Your task to perform on an android device: Go to Google maps Image 0: 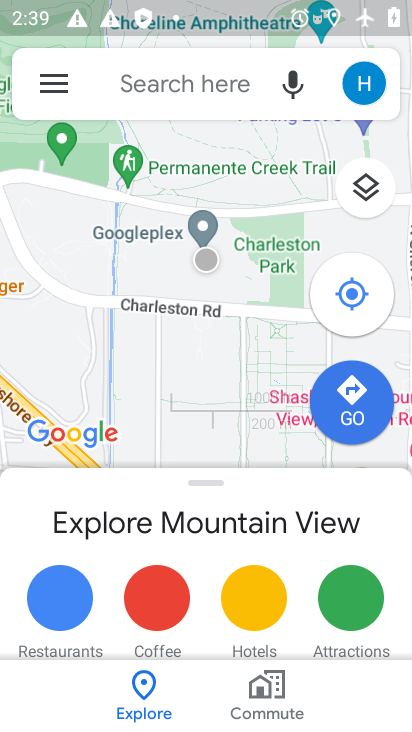
Step 0: press home button
Your task to perform on an android device: Go to Google maps Image 1: 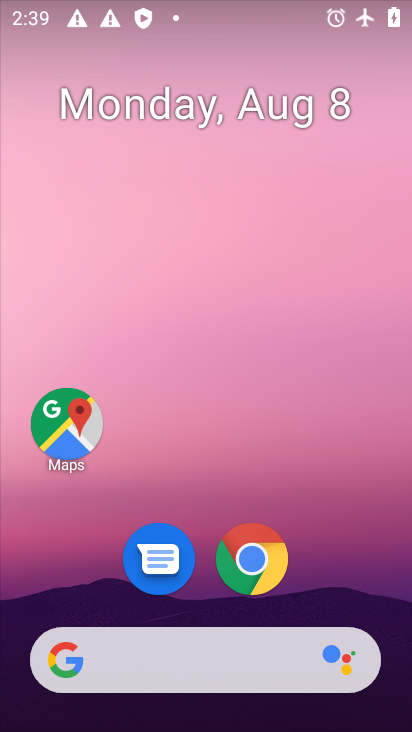
Step 1: click (70, 426)
Your task to perform on an android device: Go to Google maps Image 2: 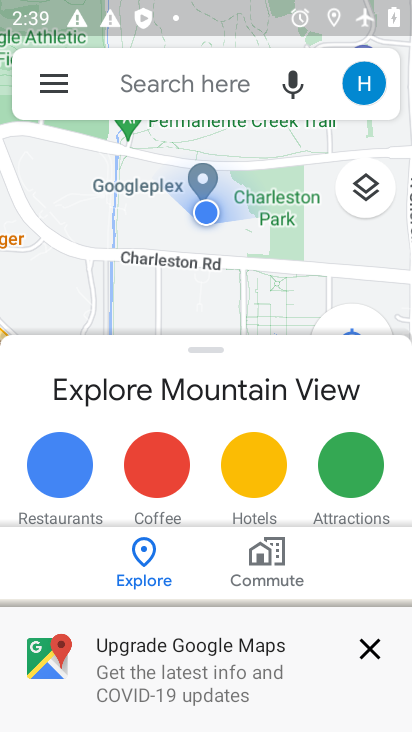
Step 2: task complete